Your task to perform on an android device: Search for flights from NYC to Paris Image 0: 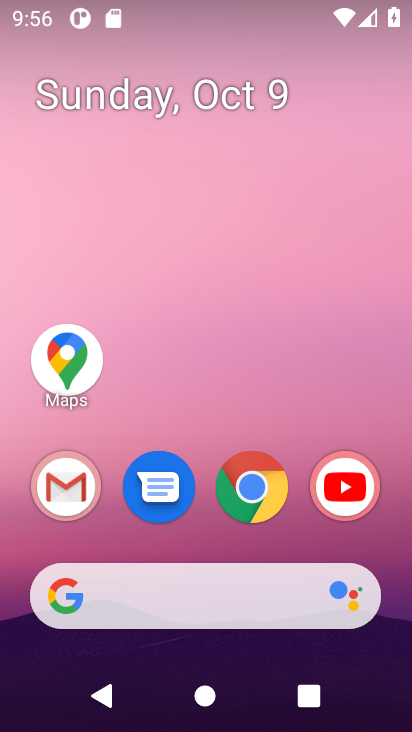
Step 0: click (210, 197)
Your task to perform on an android device: Search for flights from NYC to Paris Image 1: 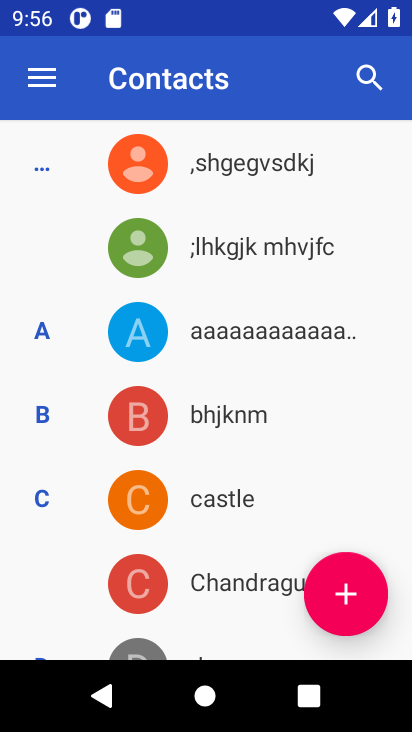
Step 1: press home button
Your task to perform on an android device: Search for flights from NYC to Paris Image 2: 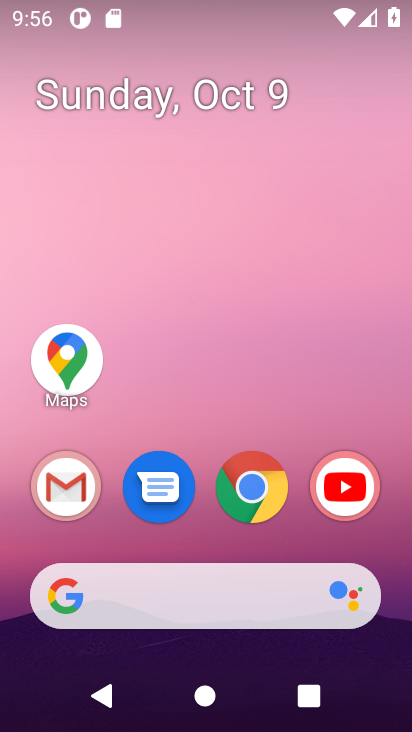
Step 2: click (232, 479)
Your task to perform on an android device: Search for flights from NYC to Paris Image 3: 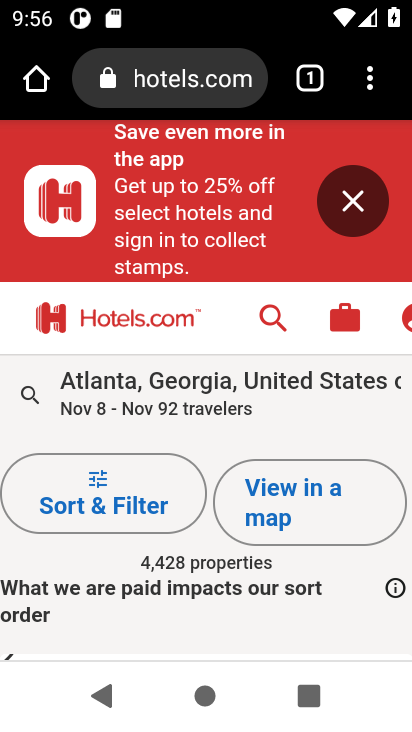
Step 3: click (176, 72)
Your task to perform on an android device: Search for flights from NYC to Paris Image 4: 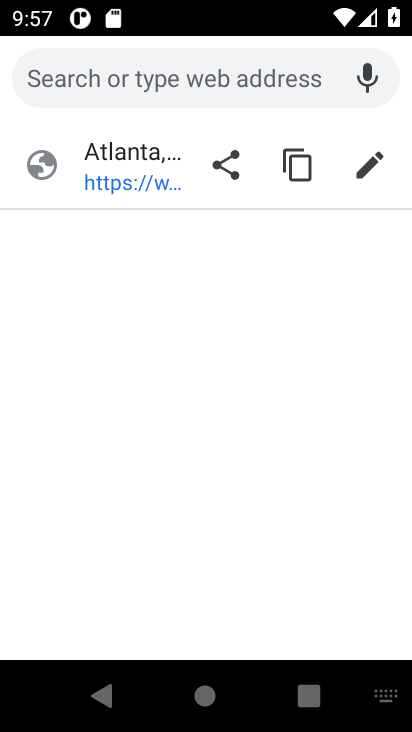
Step 4: type "flights from nyc to paris"
Your task to perform on an android device: Search for flights from NYC to Paris Image 5: 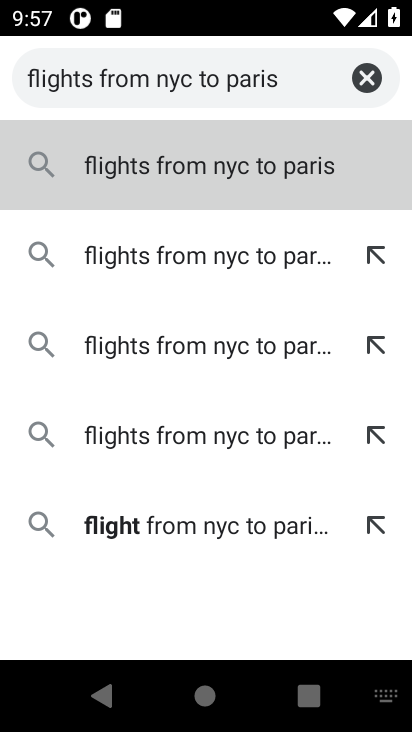
Step 5: press enter
Your task to perform on an android device: Search for flights from NYC to Paris Image 6: 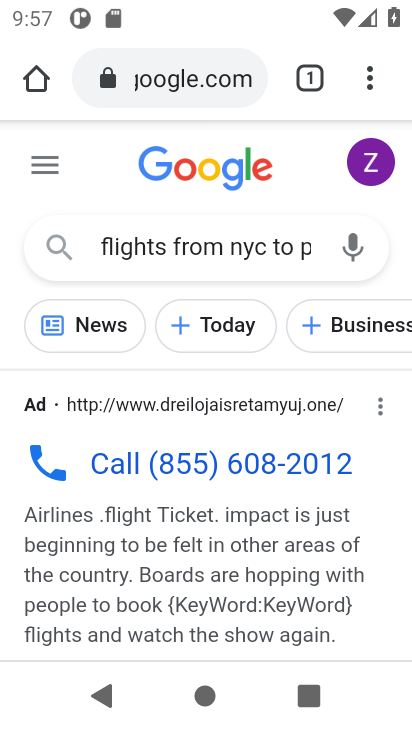
Step 6: drag from (212, 586) to (178, 267)
Your task to perform on an android device: Search for flights from NYC to Paris Image 7: 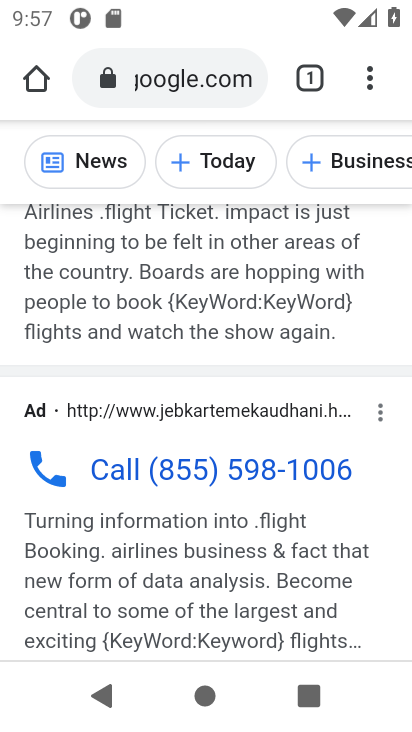
Step 7: drag from (218, 549) to (204, 245)
Your task to perform on an android device: Search for flights from NYC to Paris Image 8: 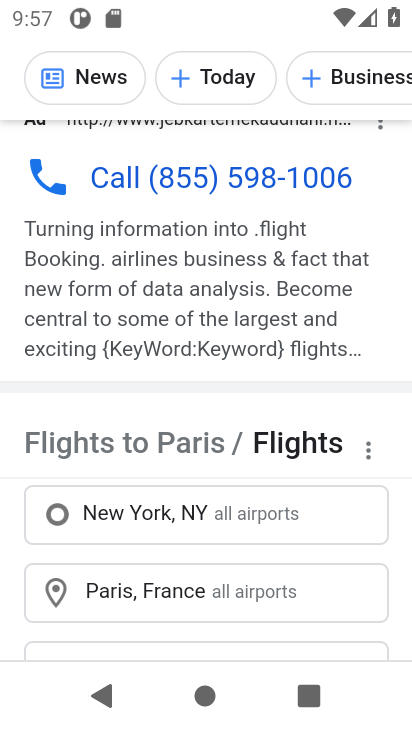
Step 8: drag from (241, 592) to (208, 187)
Your task to perform on an android device: Search for flights from NYC to Paris Image 9: 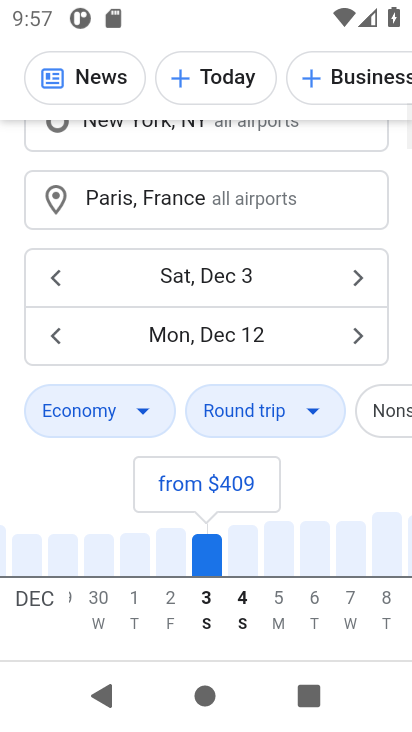
Step 9: drag from (252, 580) to (198, 236)
Your task to perform on an android device: Search for flights from NYC to Paris Image 10: 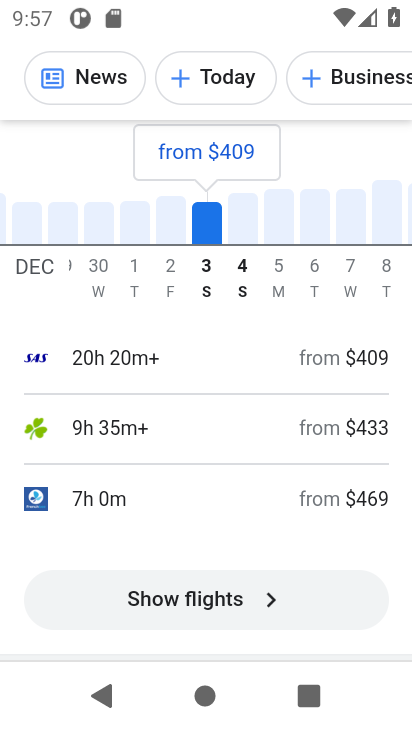
Step 10: drag from (256, 603) to (242, 382)
Your task to perform on an android device: Search for flights from NYC to Paris Image 11: 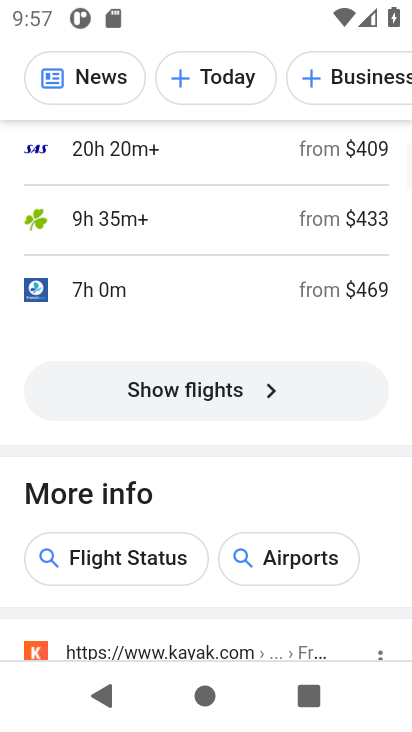
Step 11: drag from (264, 553) to (243, 288)
Your task to perform on an android device: Search for flights from NYC to Paris Image 12: 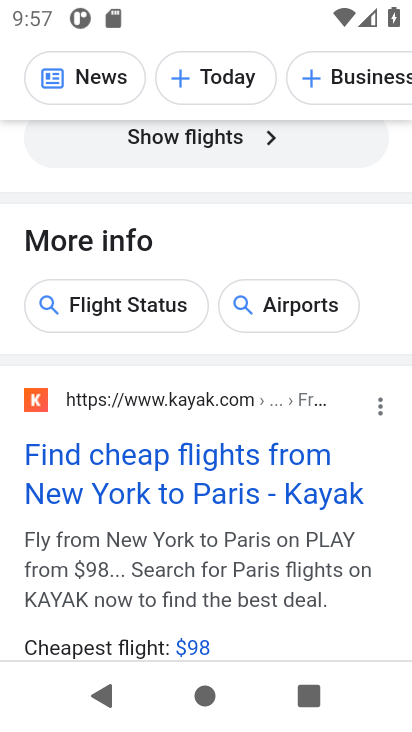
Step 12: drag from (257, 612) to (217, 417)
Your task to perform on an android device: Search for flights from NYC to Paris Image 13: 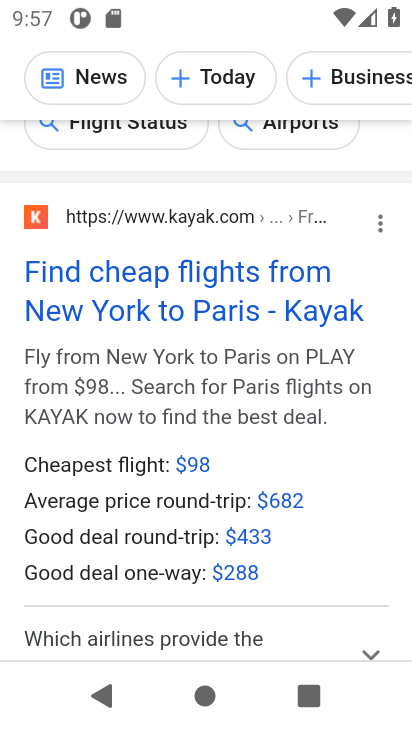
Step 13: click (250, 283)
Your task to perform on an android device: Search for flights from NYC to Paris Image 14: 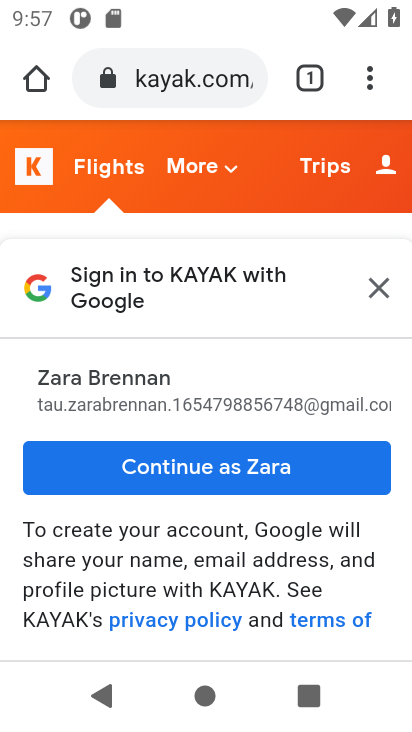
Step 14: click (253, 460)
Your task to perform on an android device: Search for flights from NYC to Paris Image 15: 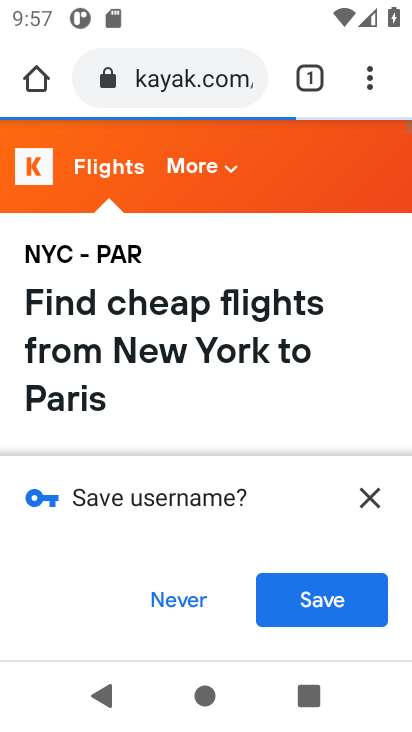
Step 15: drag from (289, 469) to (264, 294)
Your task to perform on an android device: Search for flights from NYC to Paris Image 16: 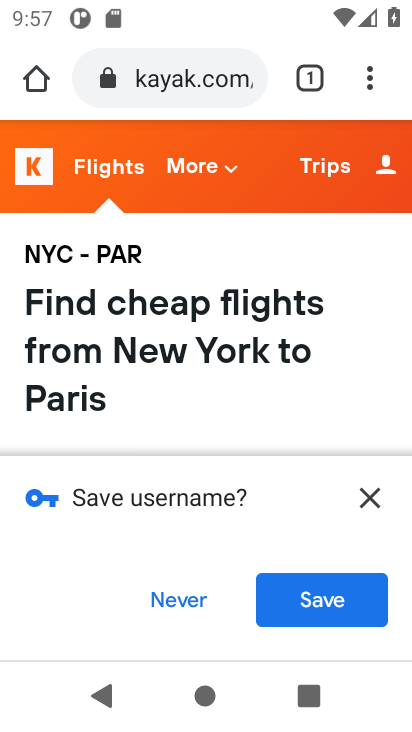
Step 16: click (185, 600)
Your task to perform on an android device: Search for flights from NYC to Paris Image 17: 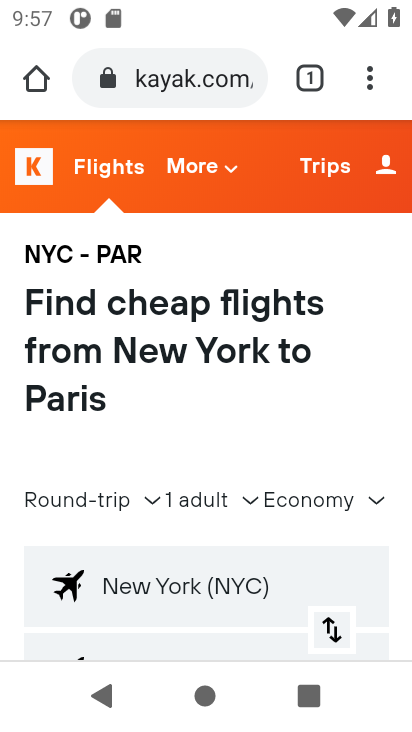
Step 17: drag from (187, 595) to (147, 291)
Your task to perform on an android device: Search for flights from NYC to Paris Image 18: 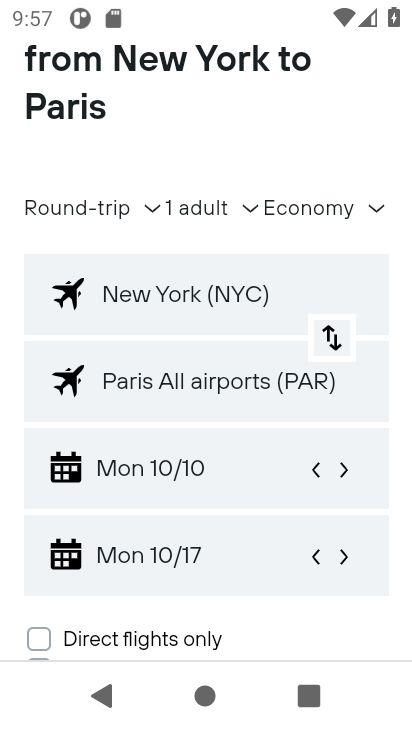
Step 18: drag from (247, 624) to (219, 253)
Your task to perform on an android device: Search for flights from NYC to Paris Image 19: 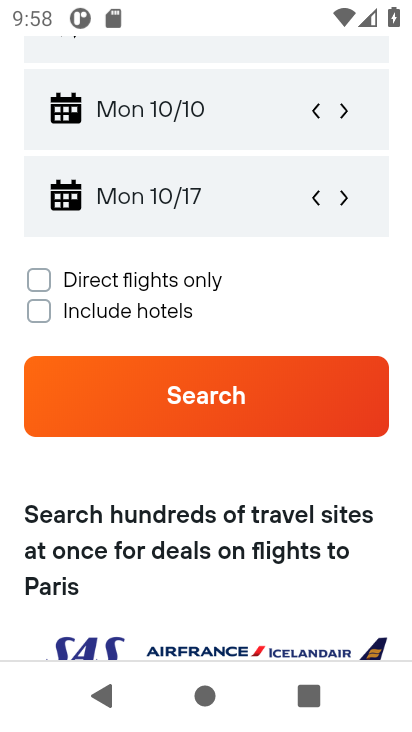
Step 19: click (226, 424)
Your task to perform on an android device: Search for flights from NYC to Paris Image 20: 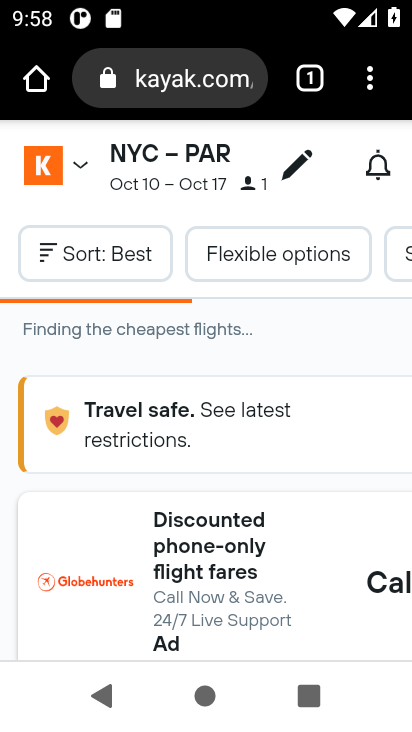
Step 20: task complete